Your task to perform on an android device: check data usage Image 0: 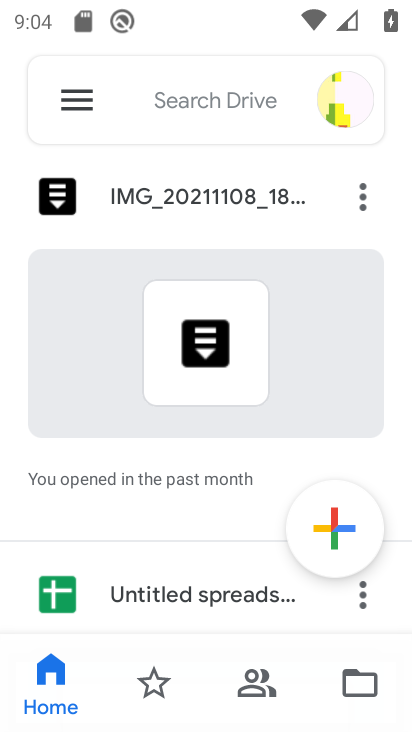
Step 0: press home button
Your task to perform on an android device: check data usage Image 1: 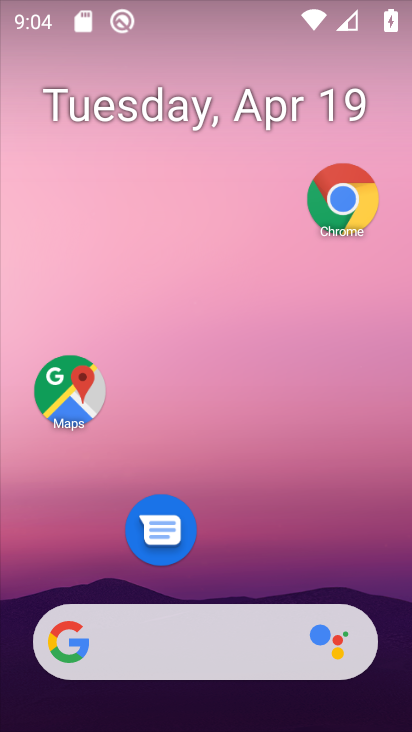
Step 1: drag from (230, 521) to (287, 123)
Your task to perform on an android device: check data usage Image 2: 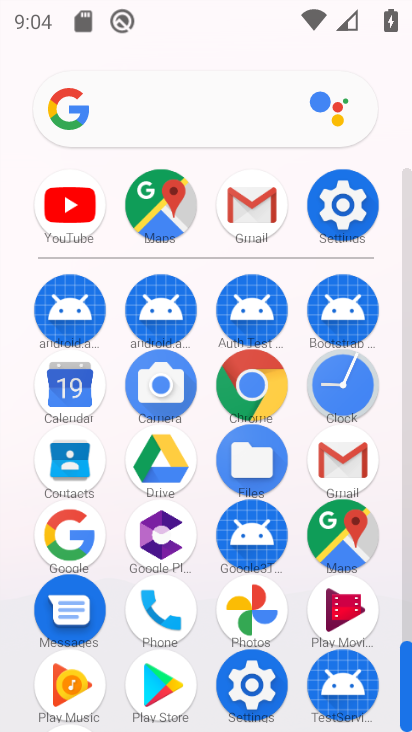
Step 2: click (342, 192)
Your task to perform on an android device: check data usage Image 3: 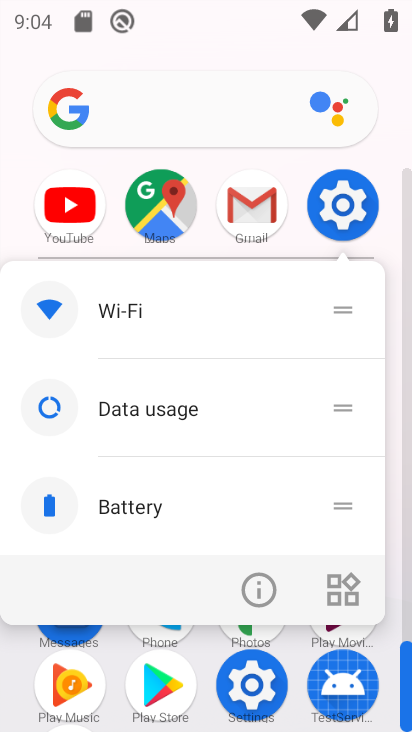
Step 3: click (256, 585)
Your task to perform on an android device: check data usage Image 4: 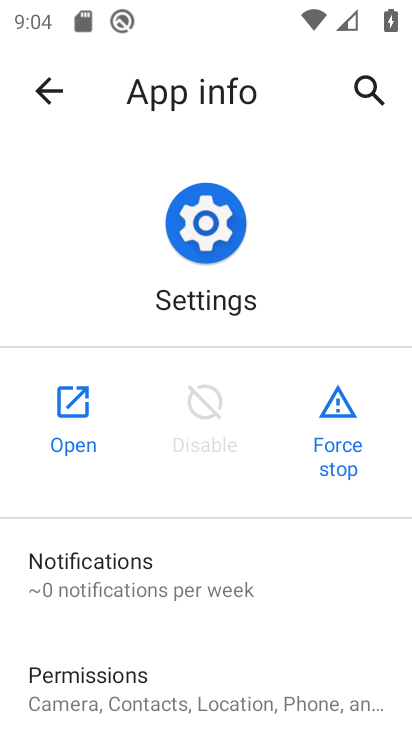
Step 4: click (98, 416)
Your task to perform on an android device: check data usage Image 5: 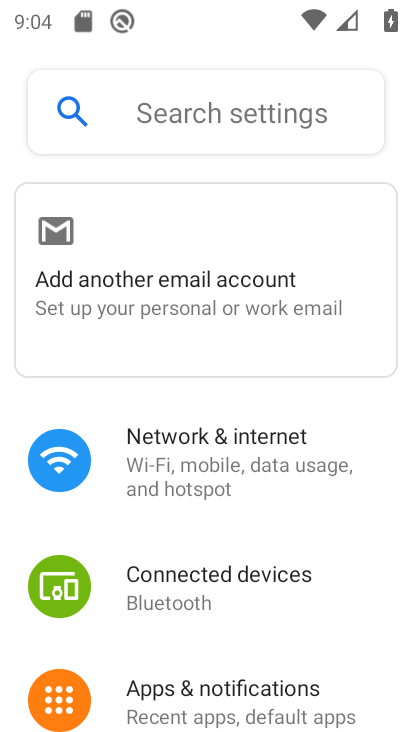
Step 5: click (212, 478)
Your task to perform on an android device: check data usage Image 6: 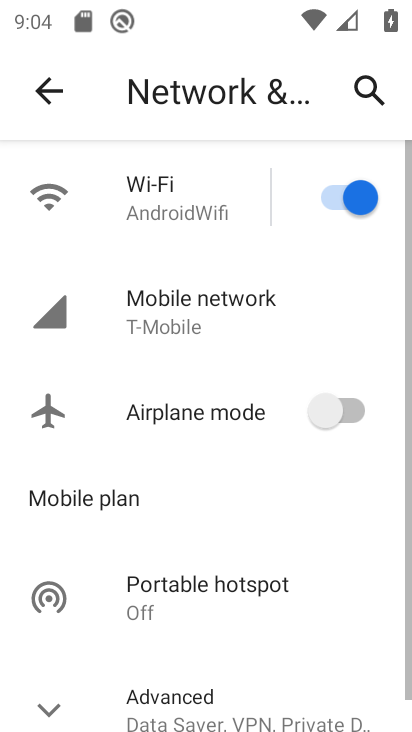
Step 6: click (201, 311)
Your task to perform on an android device: check data usage Image 7: 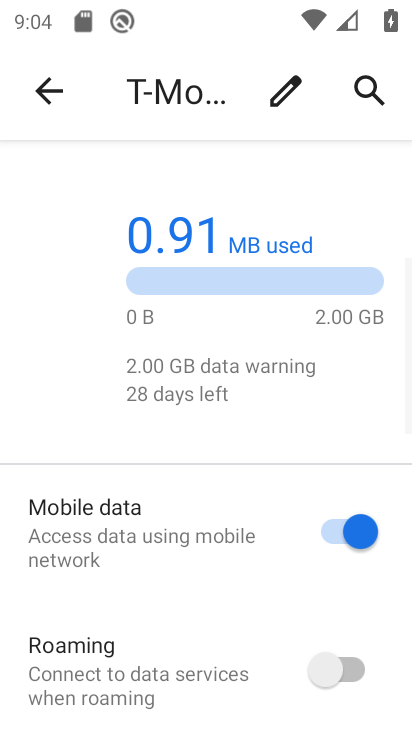
Step 7: task complete